Your task to perform on an android device: open app "Viber Messenger" Image 0: 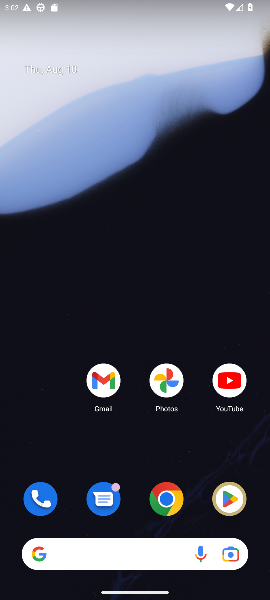
Step 0: click (227, 501)
Your task to perform on an android device: open app "Viber Messenger" Image 1: 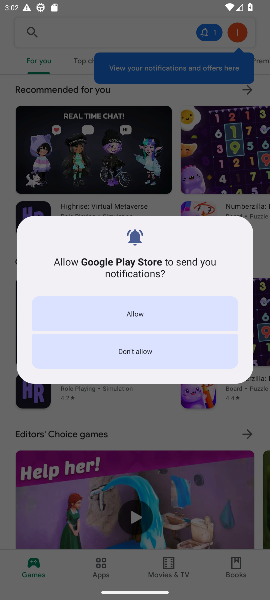
Step 1: click (132, 349)
Your task to perform on an android device: open app "Viber Messenger" Image 2: 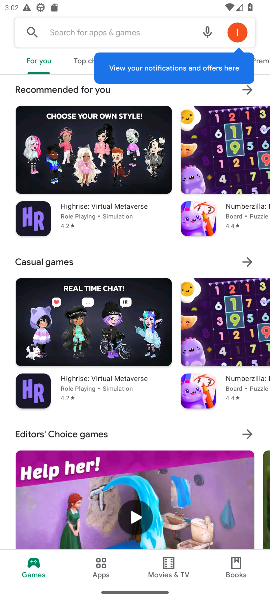
Step 2: click (112, 32)
Your task to perform on an android device: open app "Viber Messenger" Image 3: 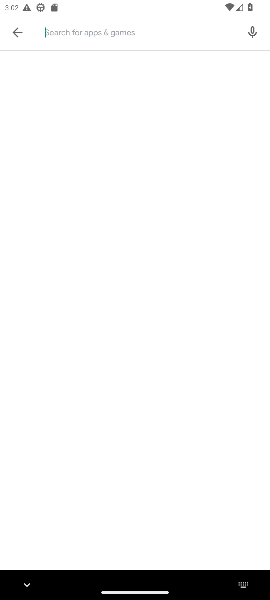
Step 3: click (111, 32)
Your task to perform on an android device: open app "Viber Messenger" Image 4: 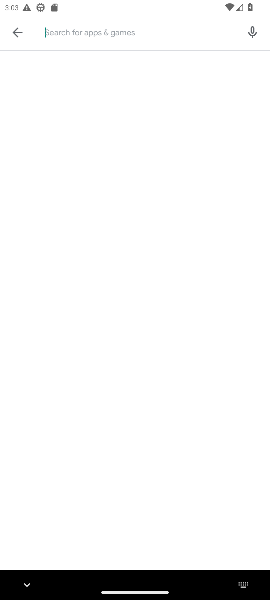
Step 4: type "viber"
Your task to perform on an android device: open app "Viber Messenger" Image 5: 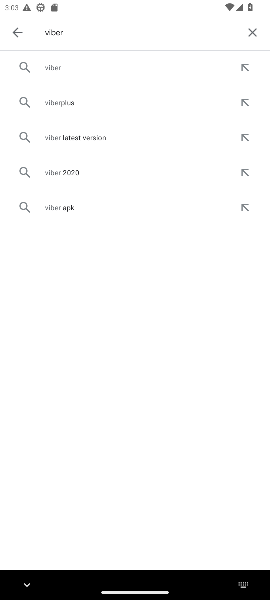
Step 5: click (51, 56)
Your task to perform on an android device: open app "Viber Messenger" Image 6: 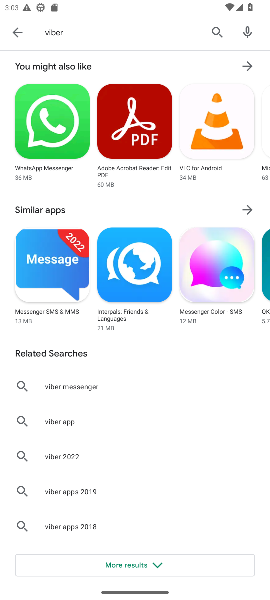
Step 6: click (144, 507)
Your task to perform on an android device: open app "Viber Messenger" Image 7: 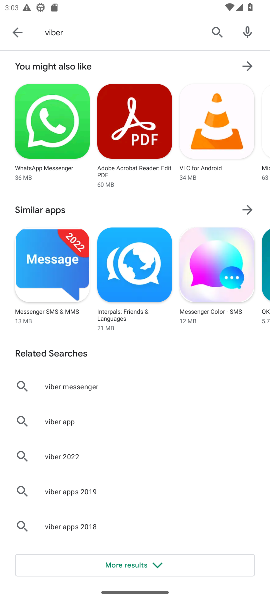
Step 7: type " Messenger"
Your task to perform on an android device: open app "Viber Messenger" Image 8: 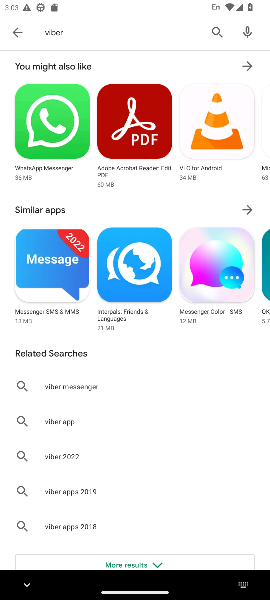
Step 8: click (99, 38)
Your task to perform on an android device: open app "Viber Messenger" Image 9: 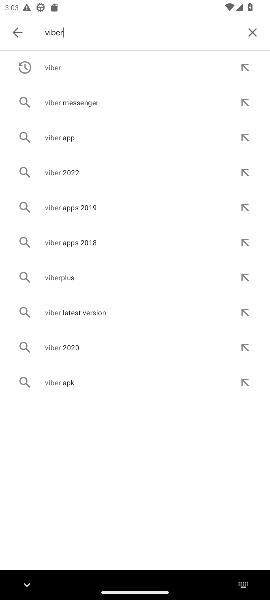
Step 9: click (71, 104)
Your task to perform on an android device: open app "Viber Messenger" Image 10: 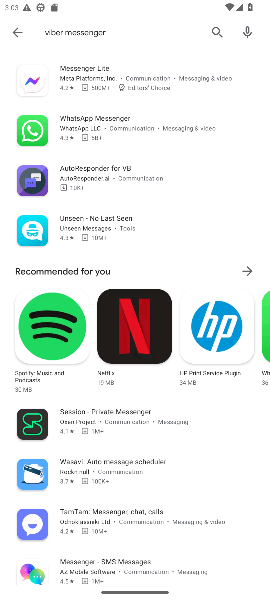
Step 10: task complete